Your task to perform on an android device: Go to Yahoo.com Image 0: 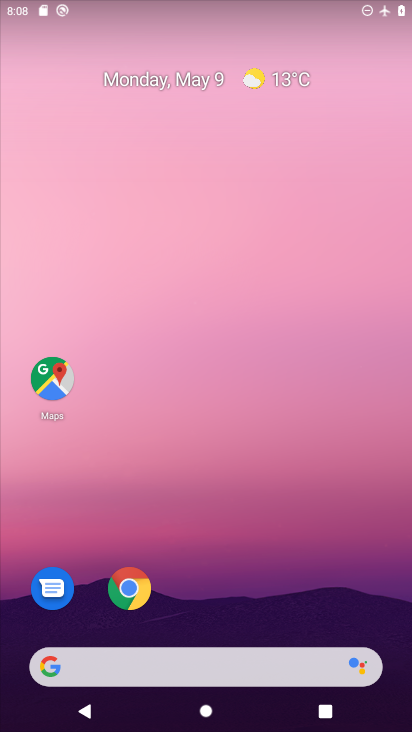
Step 0: drag from (236, 570) to (147, 2)
Your task to perform on an android device: Go to Yahoo.com Image 1: 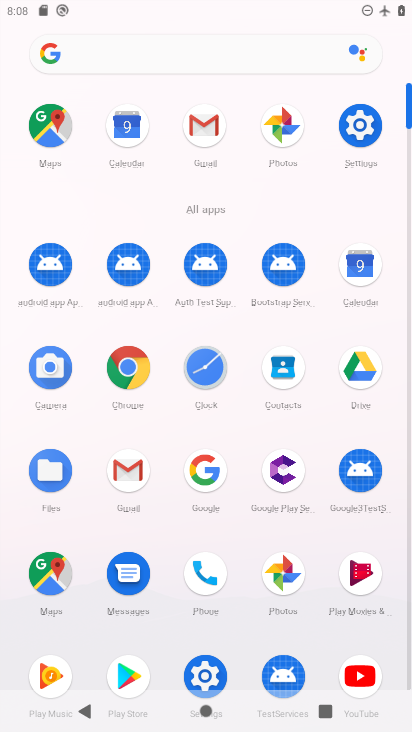
Step 1: click (355, 139)
Your task to perform on an android device: Go to Yahoo.com Image 2: 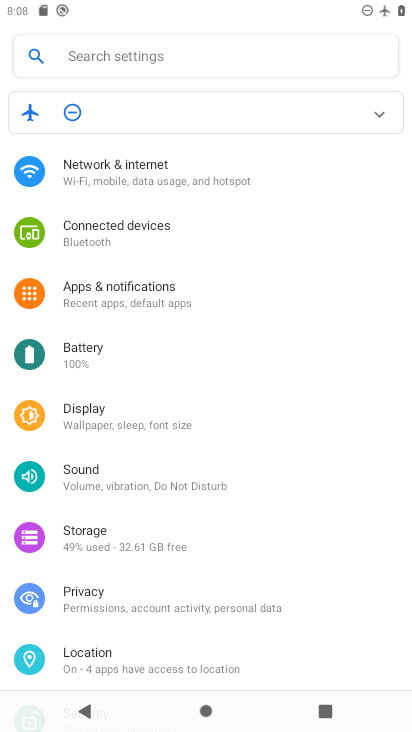
Step 2: click (229, 153)
Your task to perform on an android device: Go to Yahoo.com Image 3: 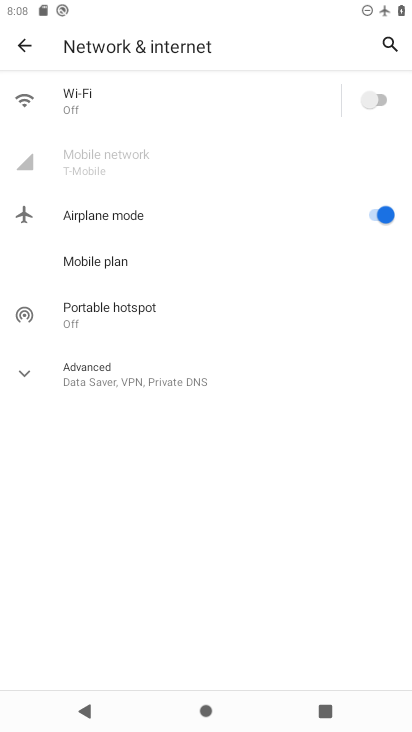
Step 3: click (364, 211)
Your task to perform on an android device: Go to Yahoo.com Image 4: 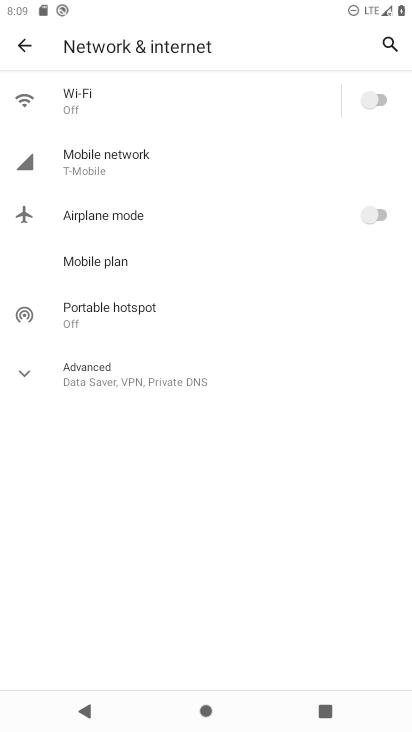
Step 4: click (366, 89)
Your task to perform on an android device: Go to Yahoo.com Image 5: 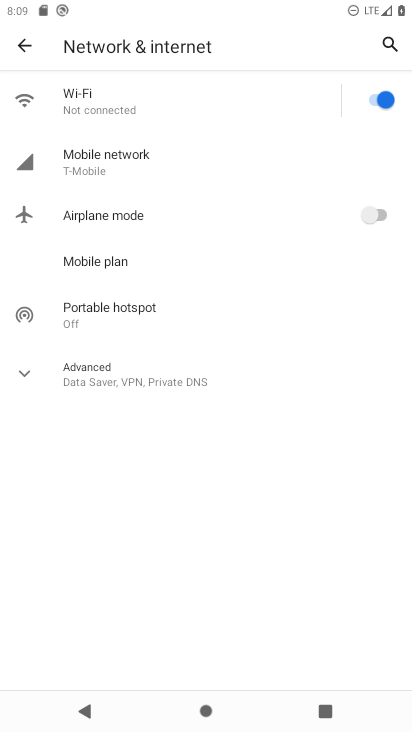
Step 5: press home button
Your task to perform on an android device: Go to Yahoo.com Image 6: 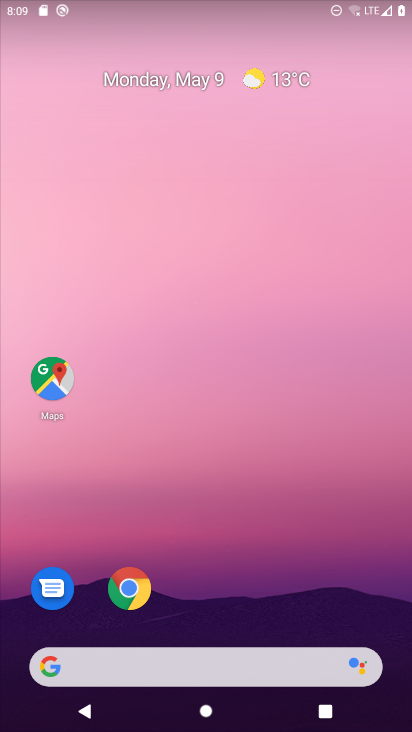
Step 6: click (138, 591)
Your task to perform on an android device: Go to Yahoo.com Image 7: 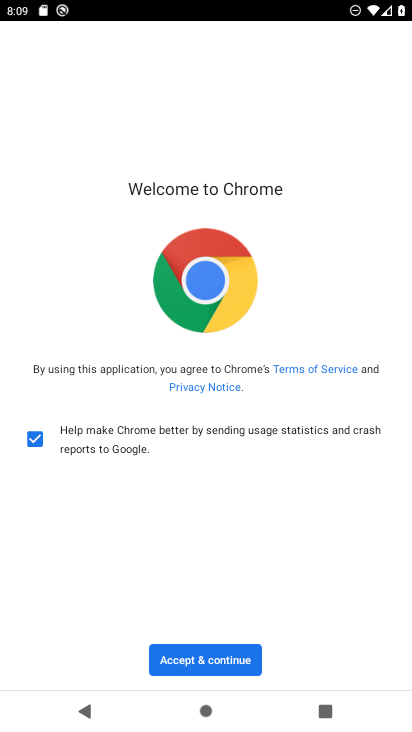
Step 7: click (200, 668)
Your task to perform on an android device: Go to Yahoo.com Image 8: 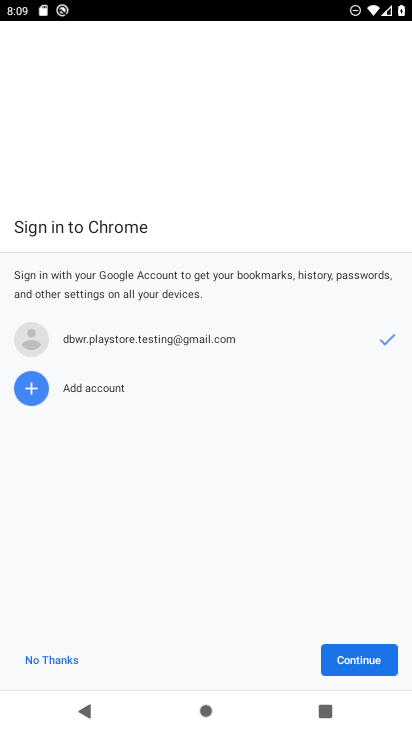
Step 8: click (335, 660)
Your task to perform on an android device: Go to Yahoo.com Image 9: 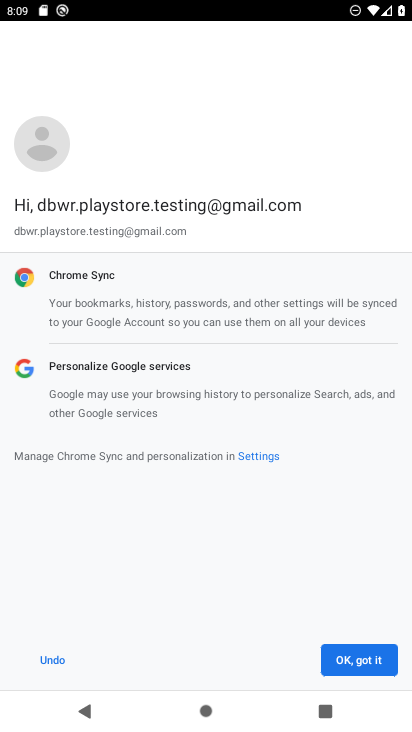
Step 9: click (335, 660)
Your task to perform on an android device: Go to Yahoo.com Image 10: 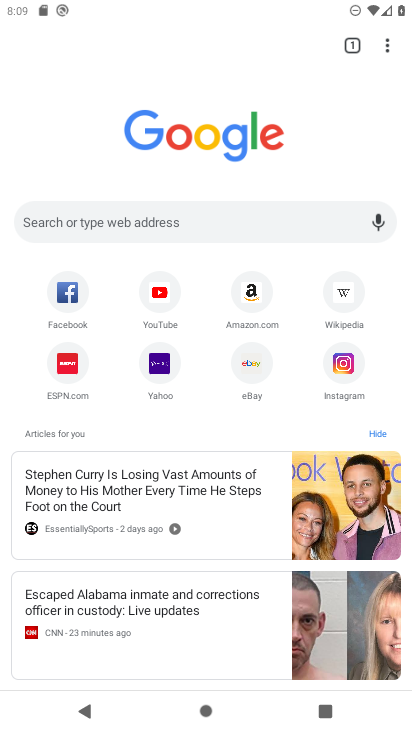
Step 10: click (160, 363)
Your task to perform on an android device: Go to Yahoo.com Image 11: 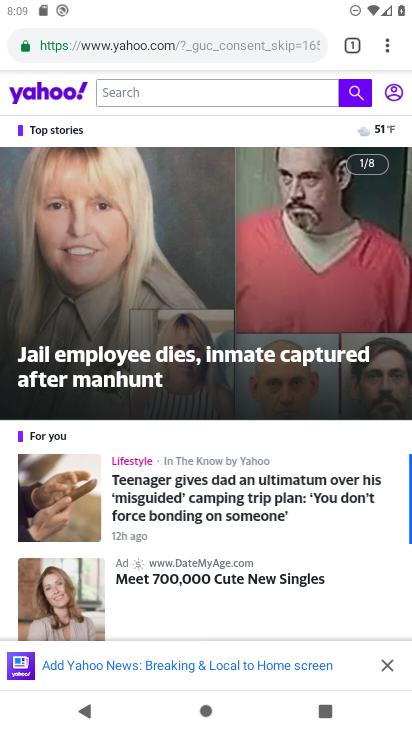
Step 11: task complete